Your task to perform on an android device: Open Google Maps and go to "Timeline" Image 0: 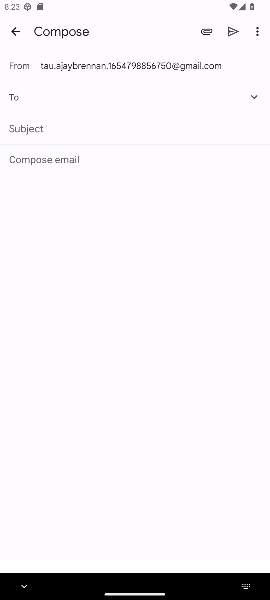
Step 0: press home button
Your task to perform on an android device: Open Google Maps and go to "Timeline" Image 1: 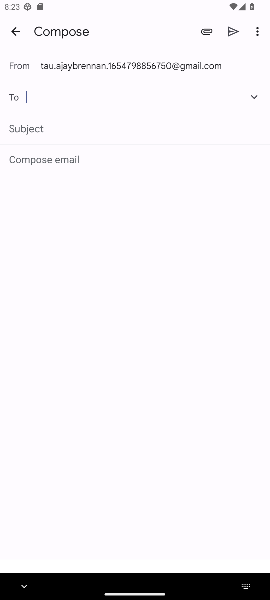
Step 1: press home button
Your task to perform on an android device: Open Google Maps and go to "Timeline" Image 2: 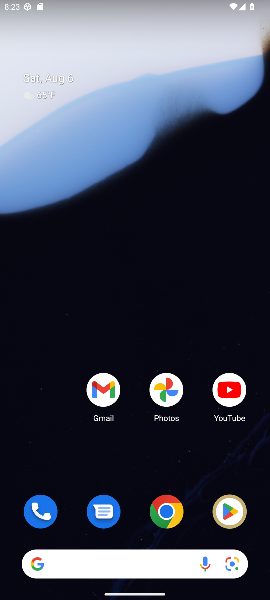
Step 2: drag from (159, 483) to (203, 81)
Your task to perform on an android device: Open Google Maps and go to "Timeline" Image 3: 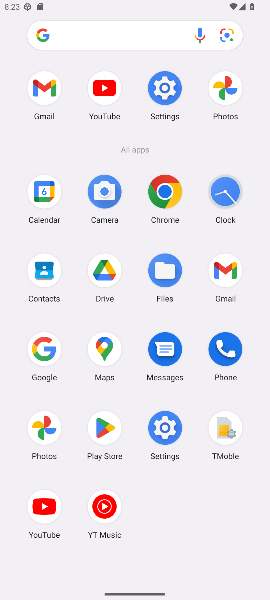
Step 3: click (107, 344)
Your task to perform on an android device: Open Google Maps and go to "Timeline" Image 4: 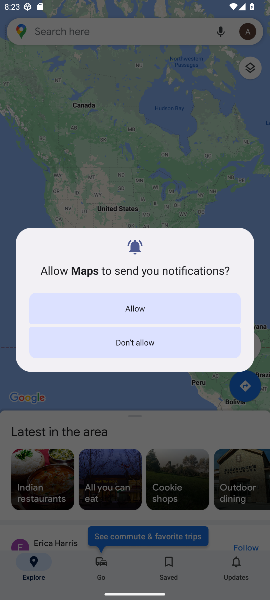
Step 4: click (153, 309)
Your task to perform on an android device: Open Google Maps and go to "Timeline" Image 5: 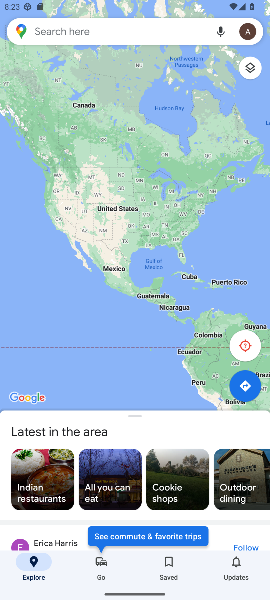
Step 5: click (253, 27)
Your task to perform on an android device: Open Google Maps and go to "Timeline" Image 6: 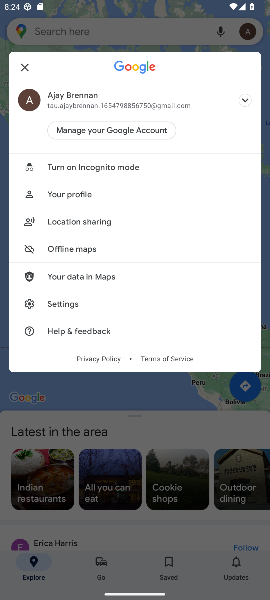
Step 6: click (244, 103)
Your task to perform on an android device: Open Google Maps and go to "Timeline" Image 7: 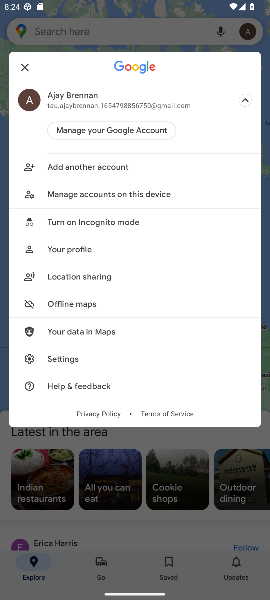
Step 7: task complete